Your task to perform on an android device: Search for Italian restaurants on Maps Image 0: 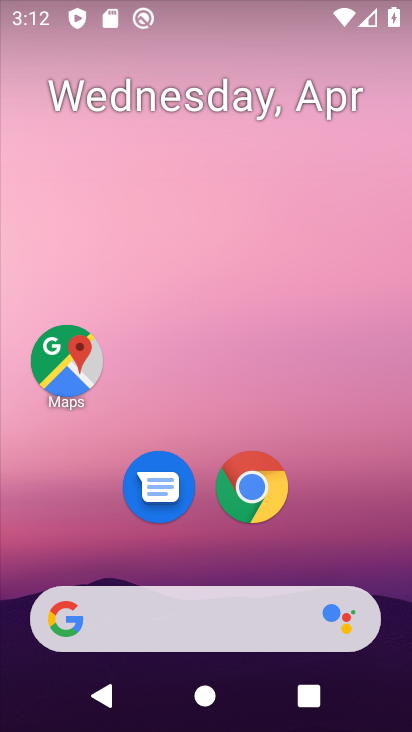
Step 0: drag from (348, 517) to (307, 25)
Your task to perform on an android device: Search for Italian restaurants on Maps Image 1: 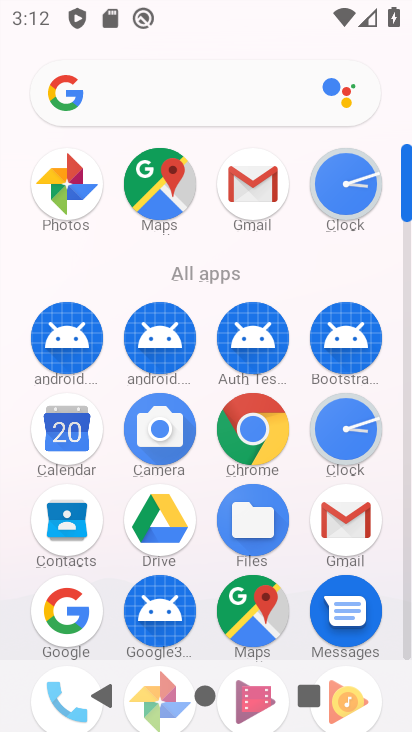
Step 1: click (153, 183)
Your task to perform on an android device: Search for Italian restaurants on Maps Image 2: 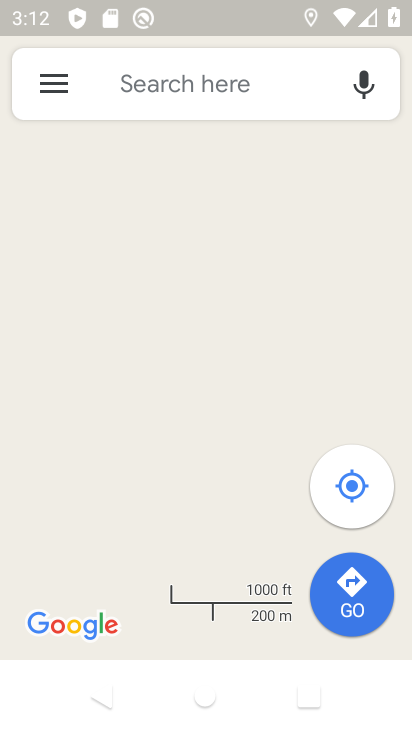
Step 2: click (234, 92)
Your task to perform on an android device: Search for Italian restaurants on Maps Image 3: 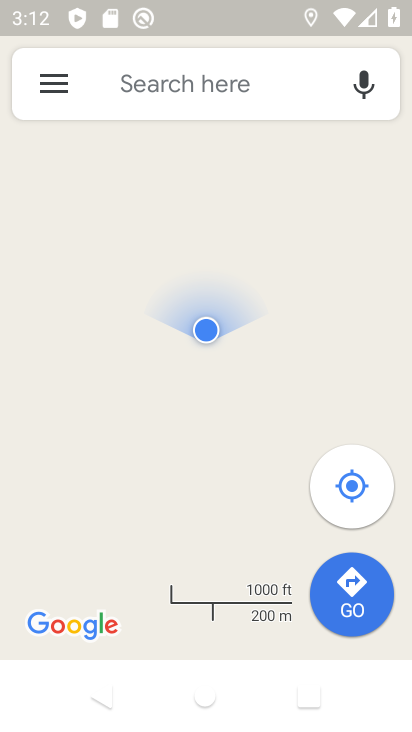
Step 3: click (226, 100)
Your task to perform on an android device: Search for Italian restaurants on Maps Image 4: 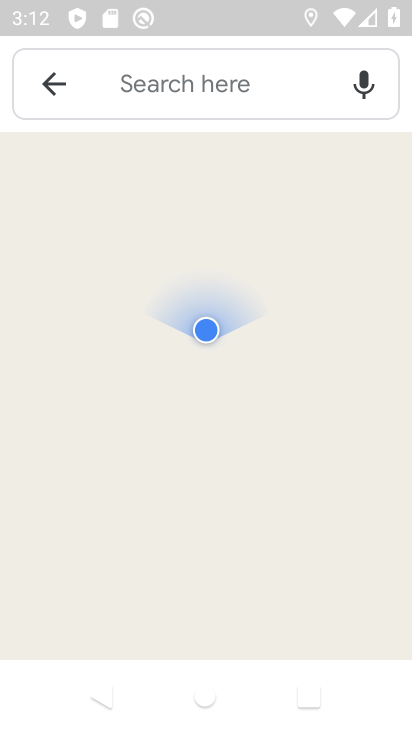
Step 4: click (226, 100)
Your task to perform on an android device: Search for Italian restaurants on Maps Image 5: 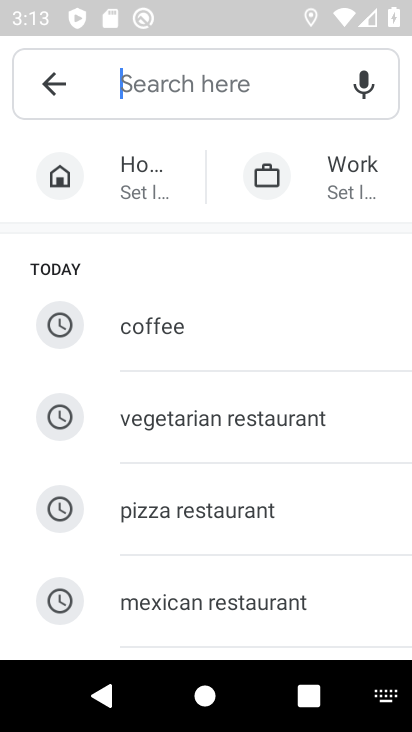
Step 5: type " Italian restaurants "
Your task to perform on an android device: Search for Italian restaurants on Maps Image 6: 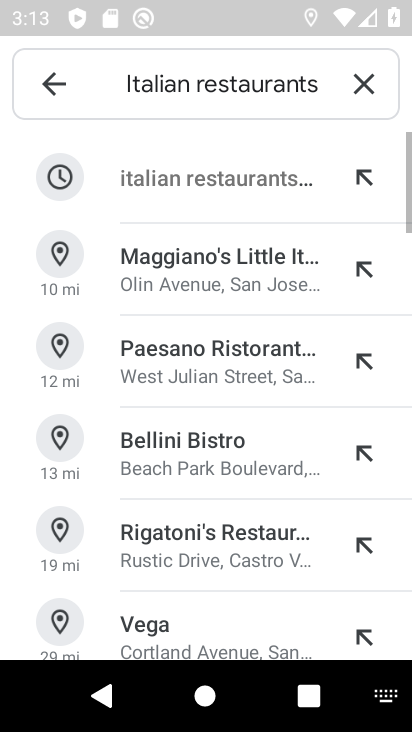
Step 6: click (159, 180)
Your task to perform on an android device: Search for Italian restaurants on Maps Image 7: 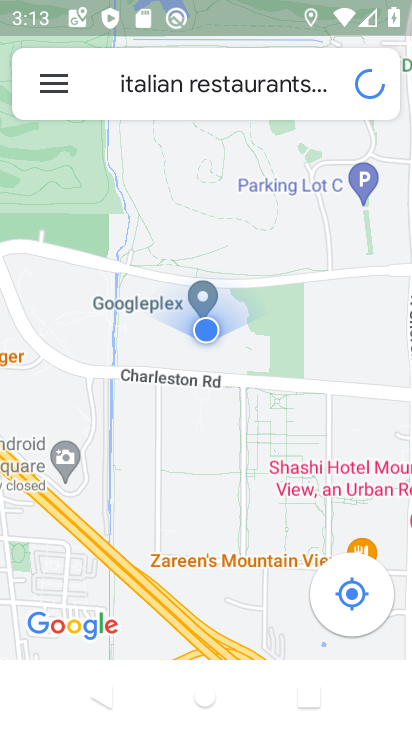
Step 7: task complete